Your task to perform on an android device: add a contact Image 0: 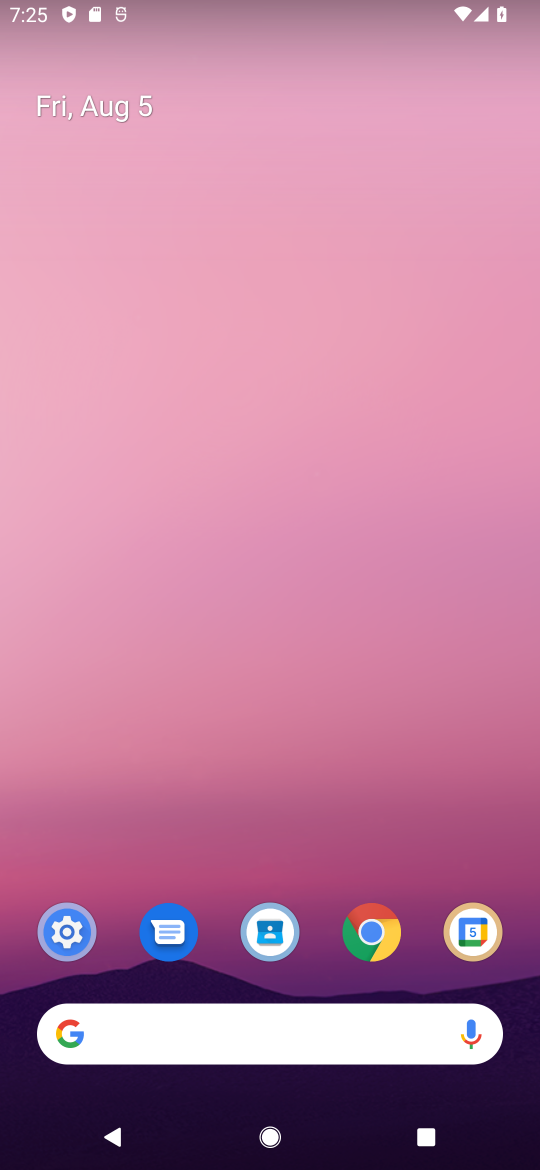
Step 0: drag from (410, 874) to (450, 189)
Your task to perform on an android device: add a contact Image 1: 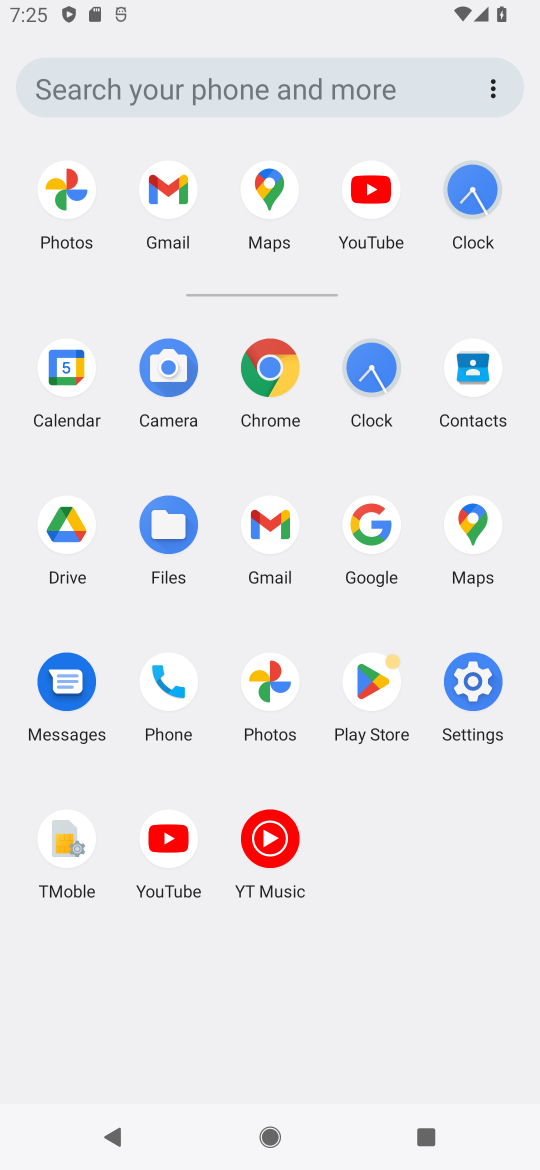
Step 1: click (485, 370)
Your task to perform on an android device: add a contact Image 2: 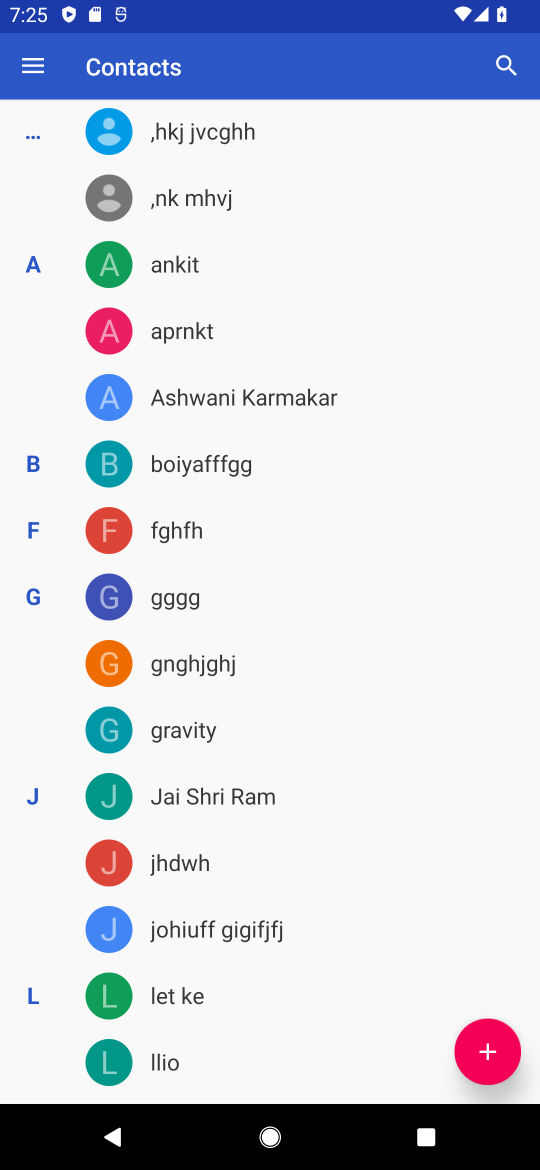
Step 2: click (475, 1064)
Your task to perform on an android device: add a contact Image 3: 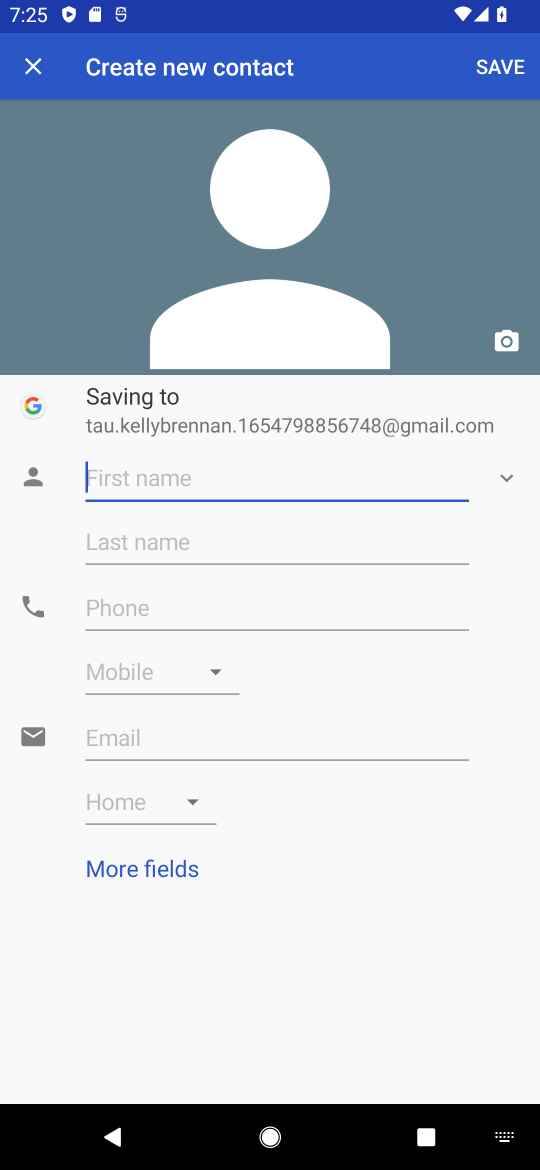
Step 3: type "hopl"
Your task to perform on an android device: add a contact Image 4: 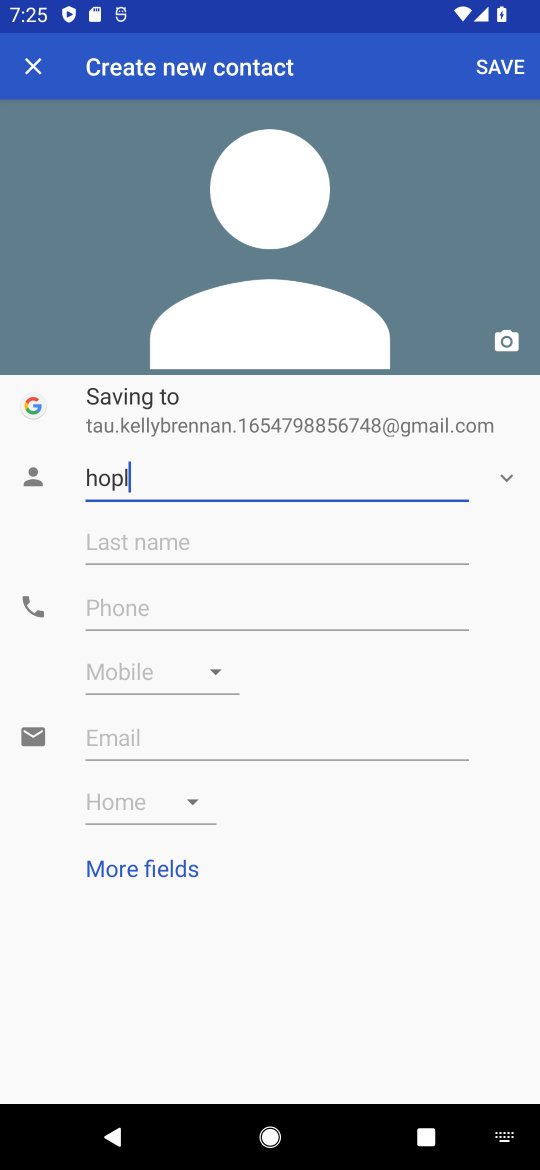
Step 4: click (487, 54)
Your task to perform on an android device: add a contact Image 5: 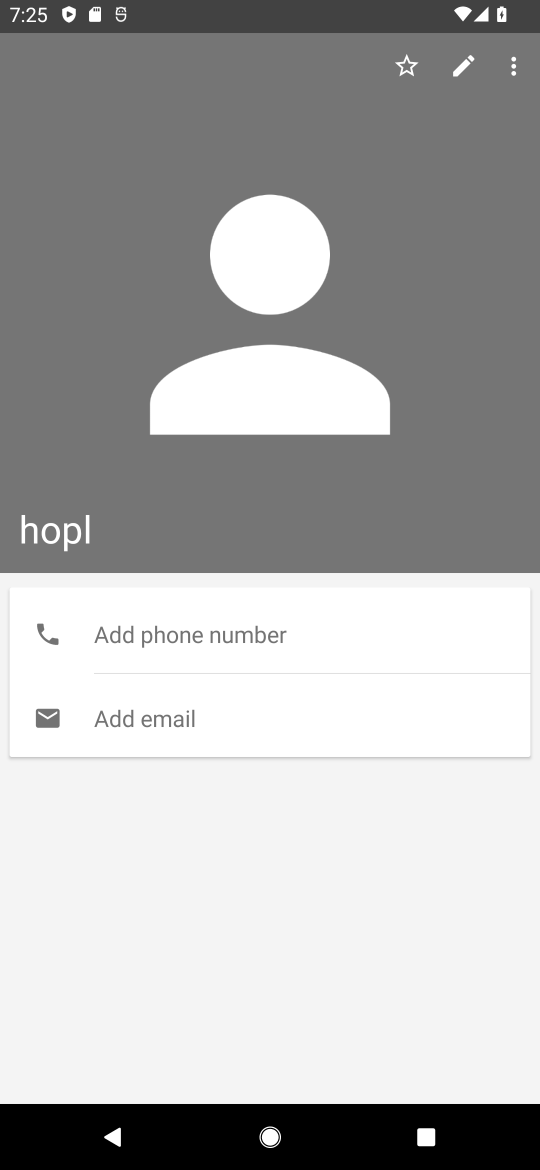
Step 5: task complete